Your task to perform on an android device: open app "Microsoft Authenticator" Image 0: 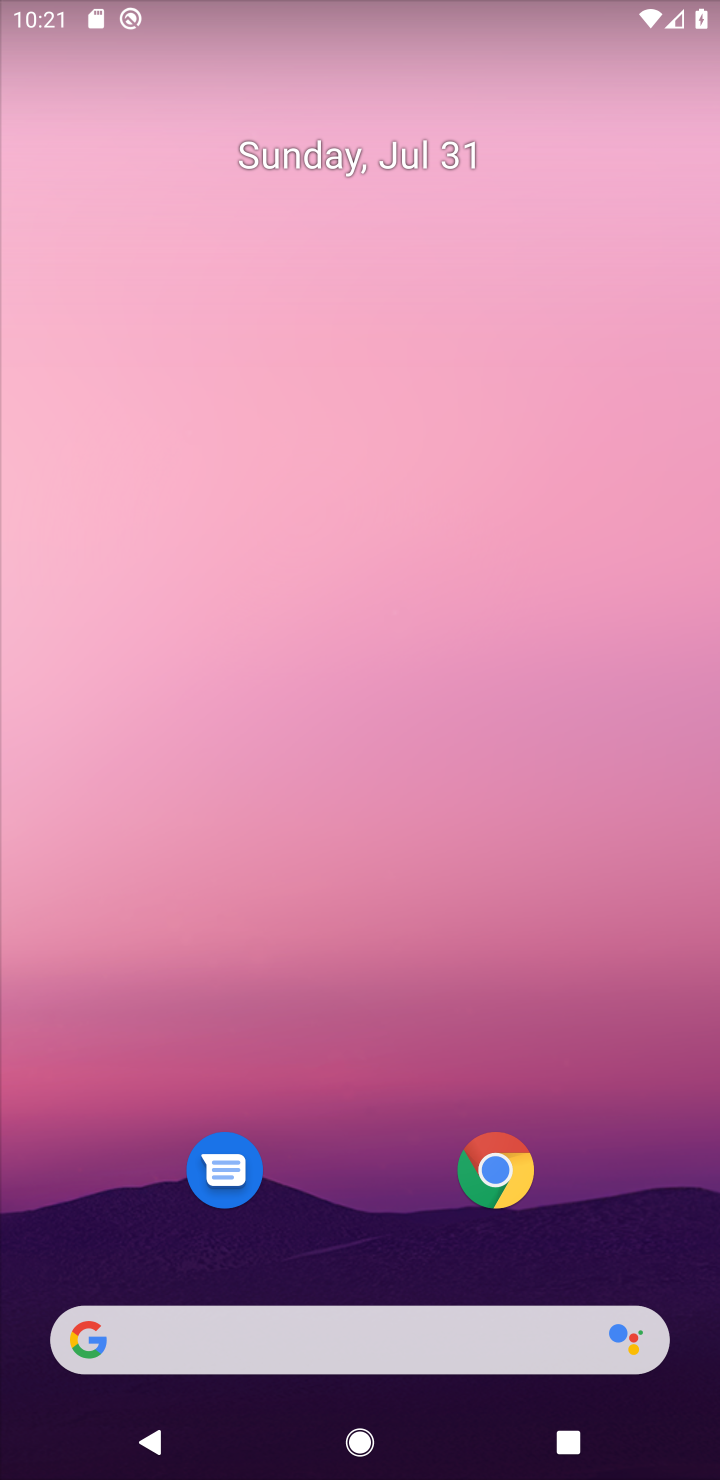
Step 0: drag from (614, 1270) to (344, 94)
Your task to perform on an android device: open app "Microsoft Authenticator" Image 1: 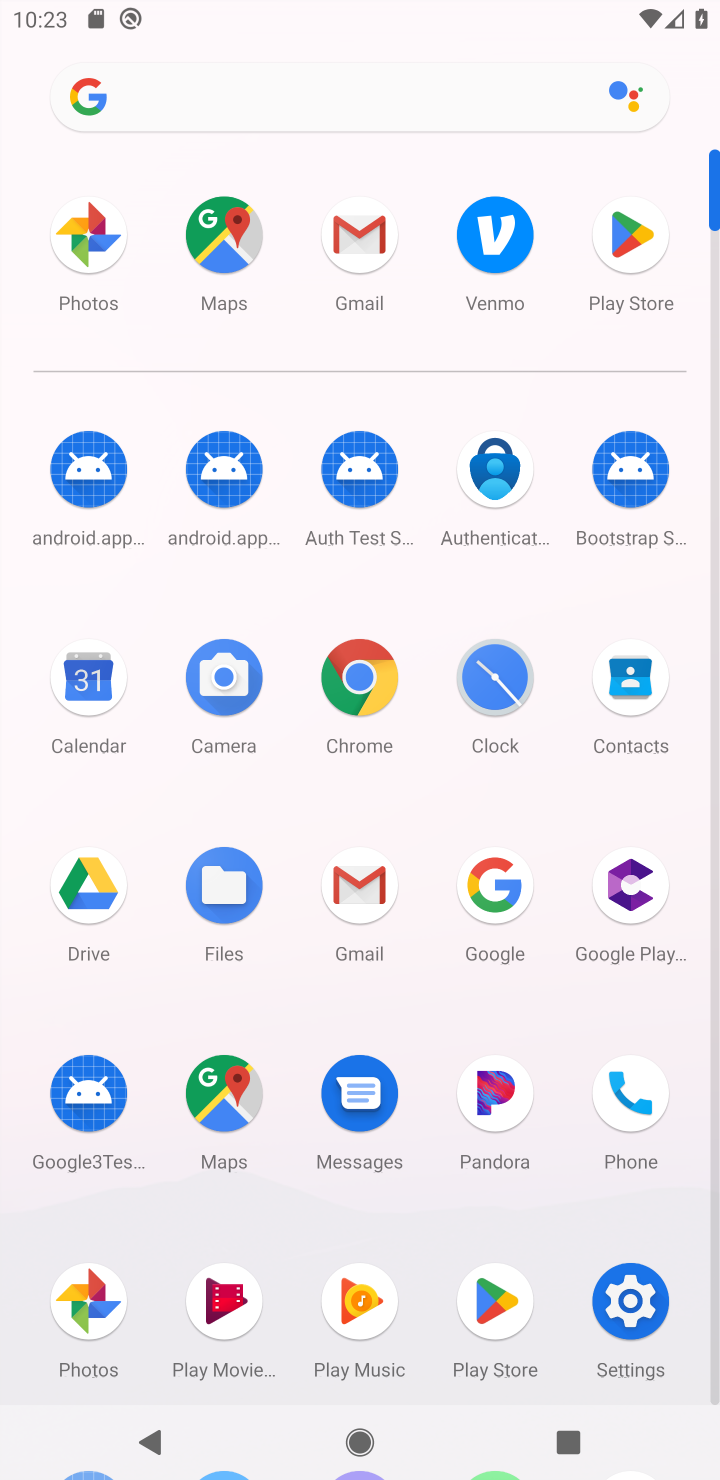
Step 1: click (663, 243)
Your task to perform on an android device: open app "Microsoft Authenticator" Image 2: 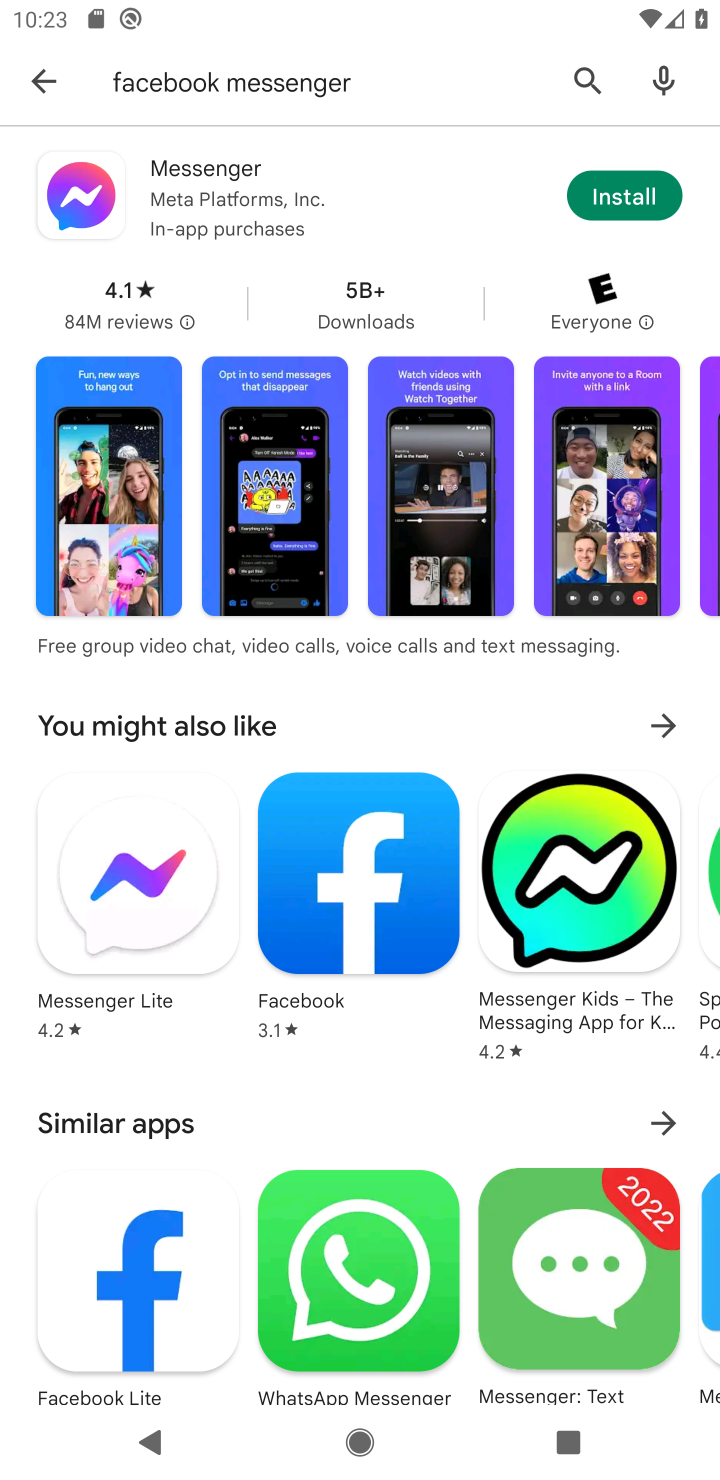
Step 2: press back button
Your task to perform on an android device: open app "Microsoft Authenticator" Image 3: 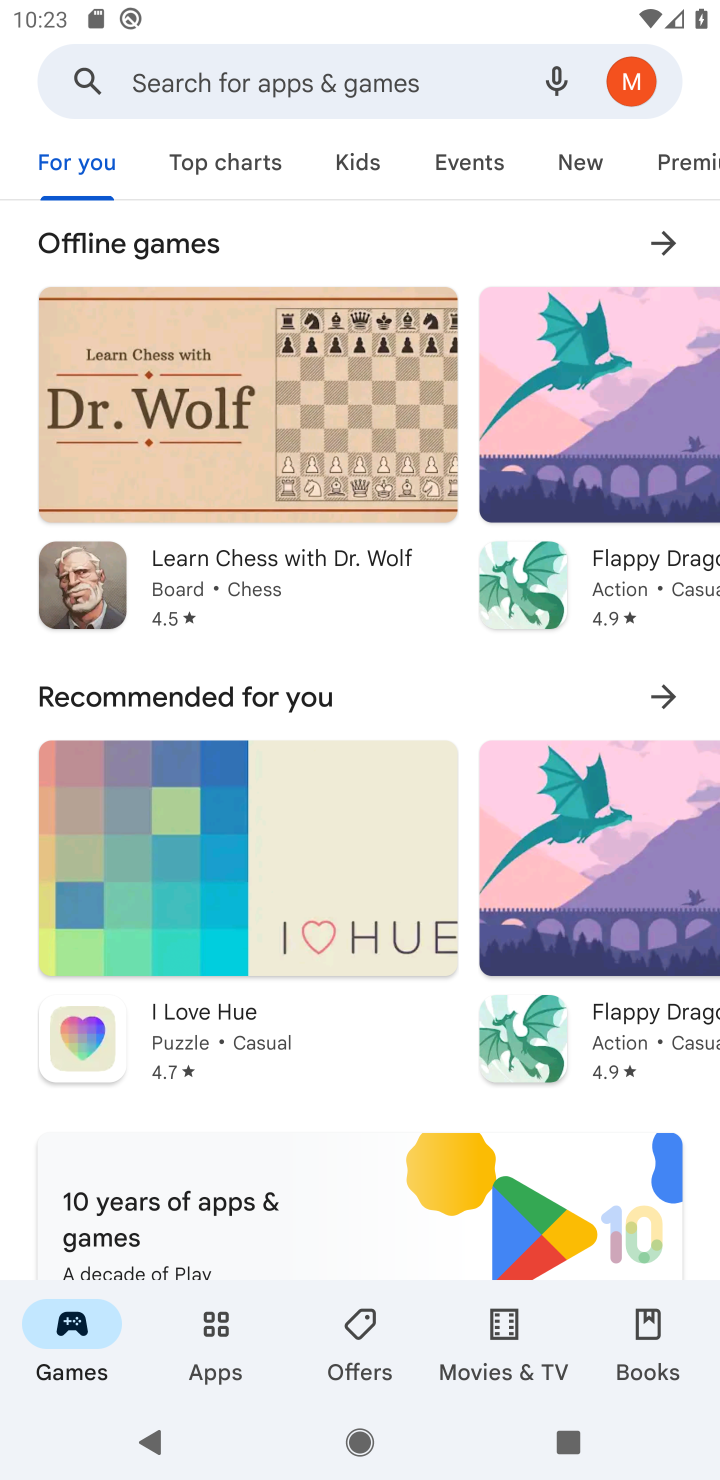
Step 3: click (291, 86)
Your task to perform on an android device: open app "Microsoft Authenticator" Image 4: 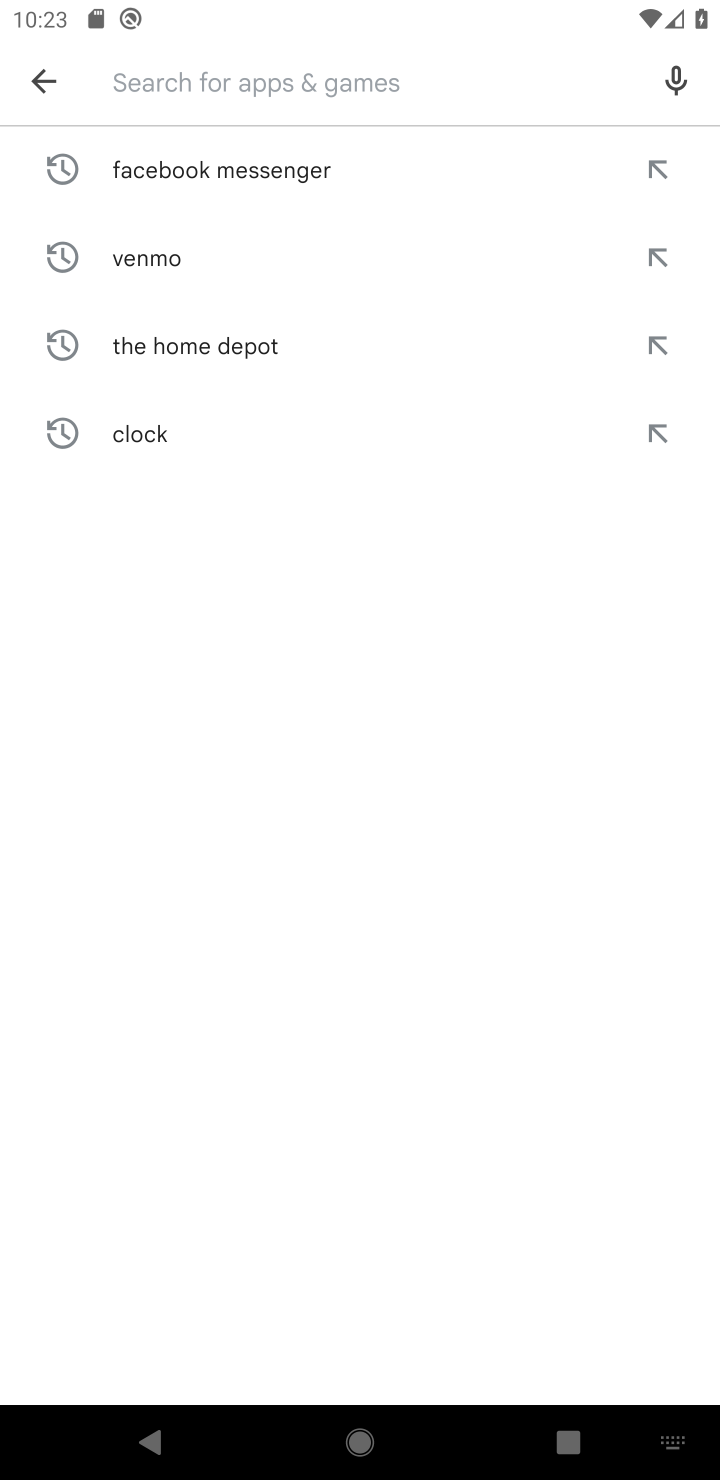
Step 4: type "Microsoft Authenticator"
Your task to perform on an android device: open app "Microsoft Authenticator" Image 5: 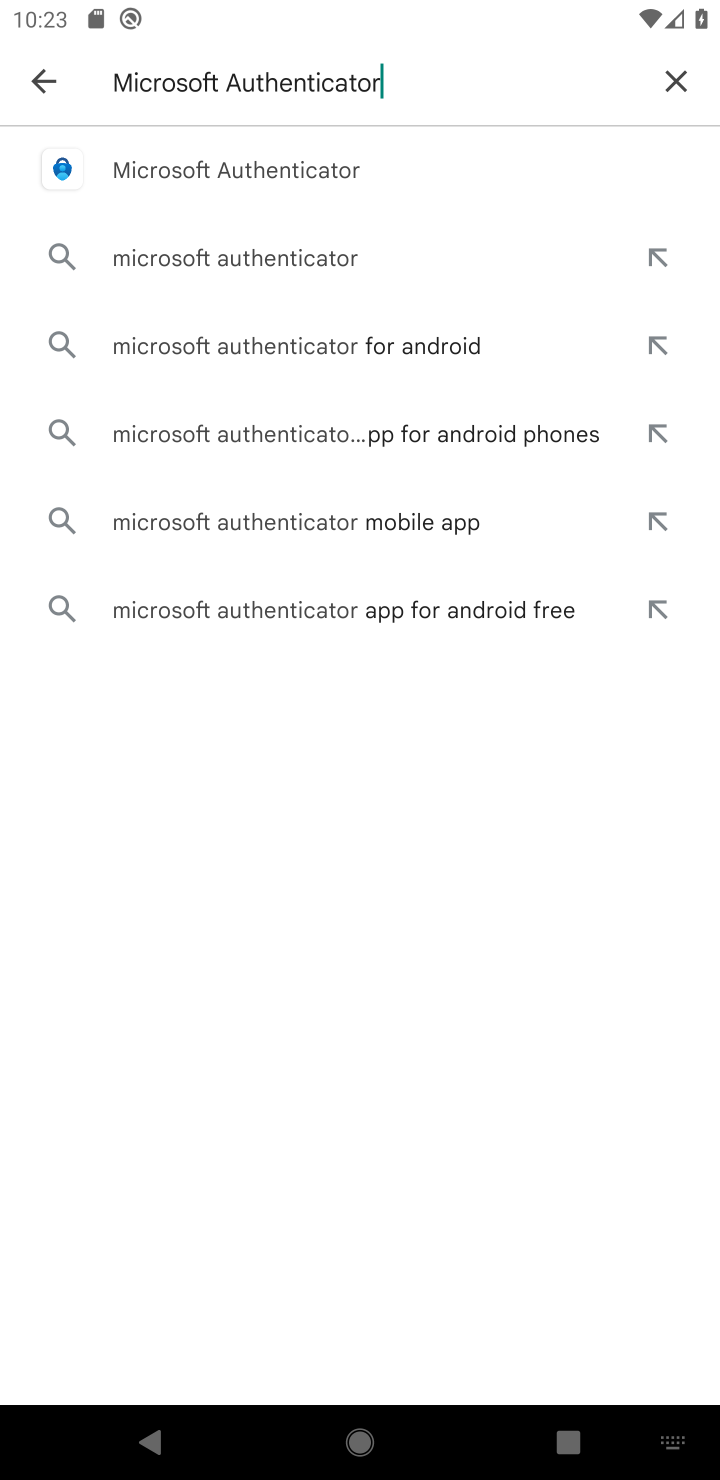
Step 5: click (239, 176)
Your task to perform on an android device: open app "Microsoft Authenticator" Image 6: 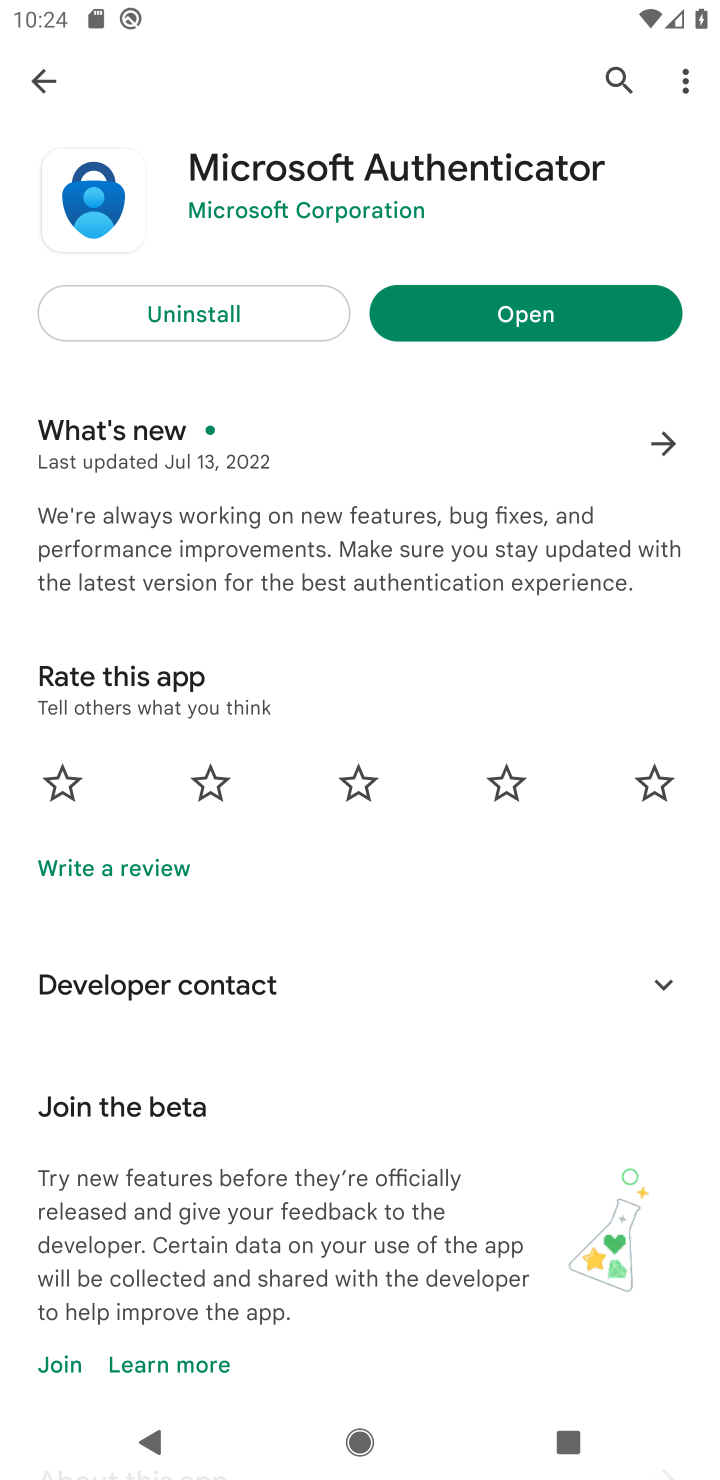
Step 6: click (558, 308)
Your task to perform on an android device: open app "Microsoft Authenticator" Image 7: 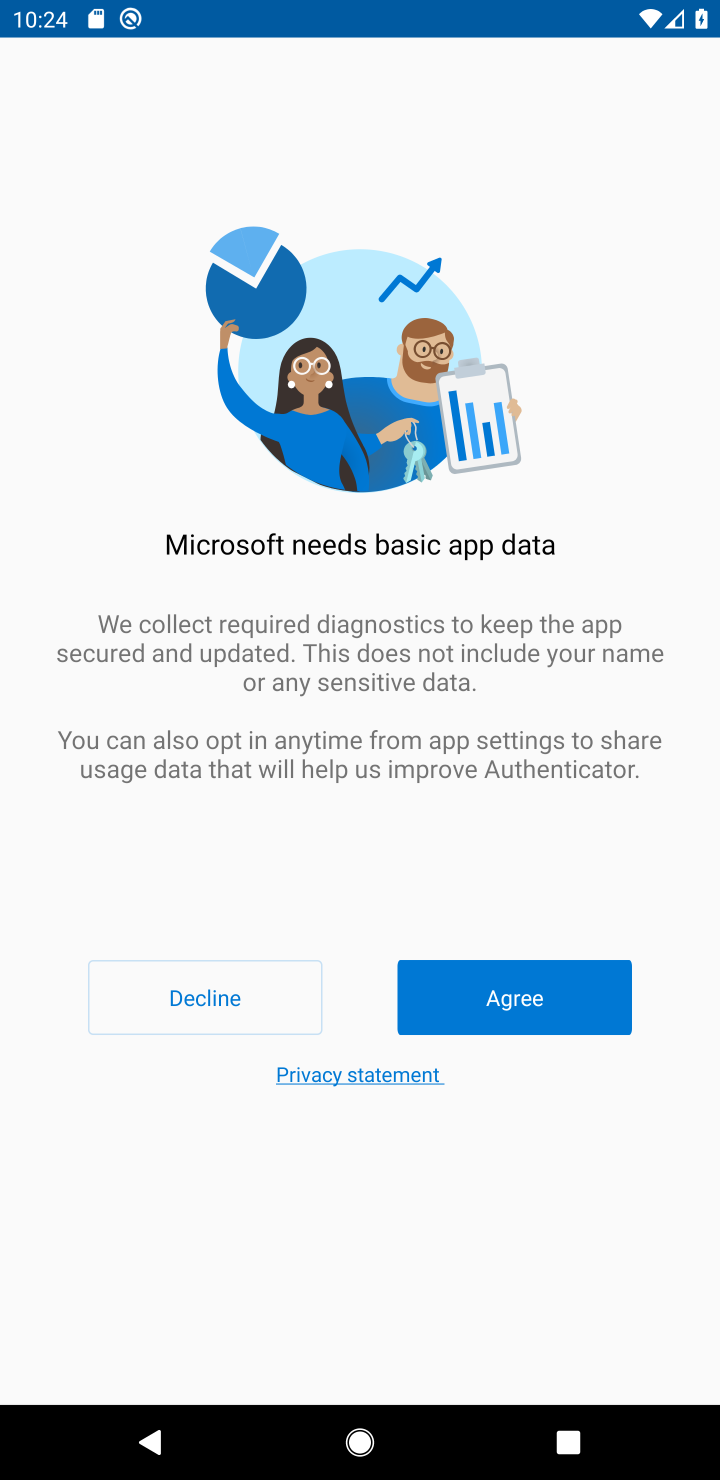
Step 7: task complete